Your task to perform on an android device: toggle data saver in the chrome app Image 0: 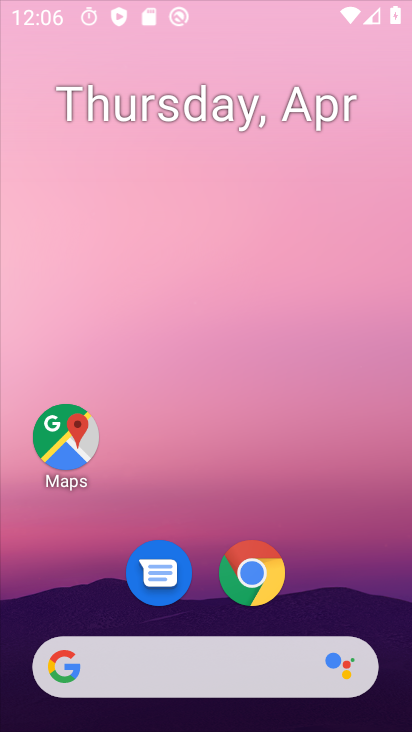
Step 0: click (396, 226)
Your task to perform on an android device: toggle data saver in the chrome app Image 1: 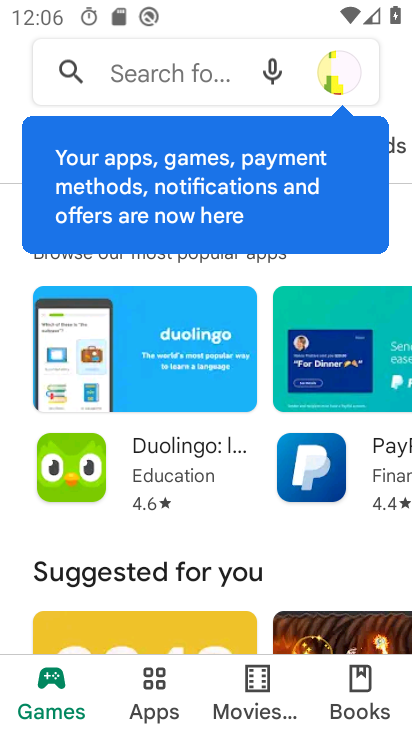
Step 1: press home button
Your task to perform on an android device: toggle data saver in the chrome app Image 2: 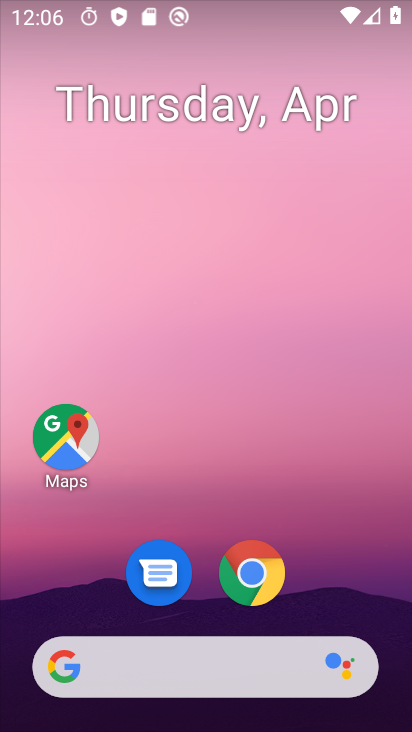
Step 2: click (250, 570)
Your task to perform on an android device: toggle data saver in the chrome app Image 3: 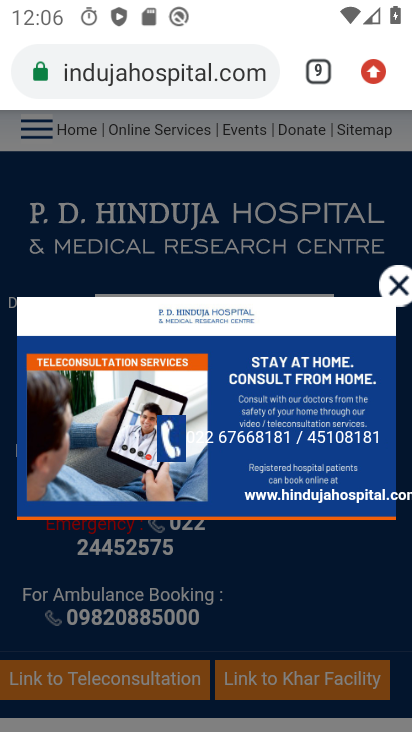
Step 3: press home button
Your task to perform on an android device: toggle data saver in the chrome app Image 4: 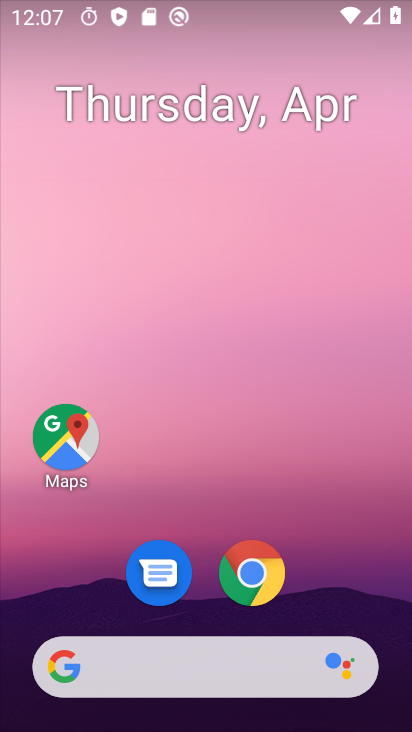
Step 4: click (256, 566)
Your task to perform on an android device: toggle data saver in the chrome app Image 5: 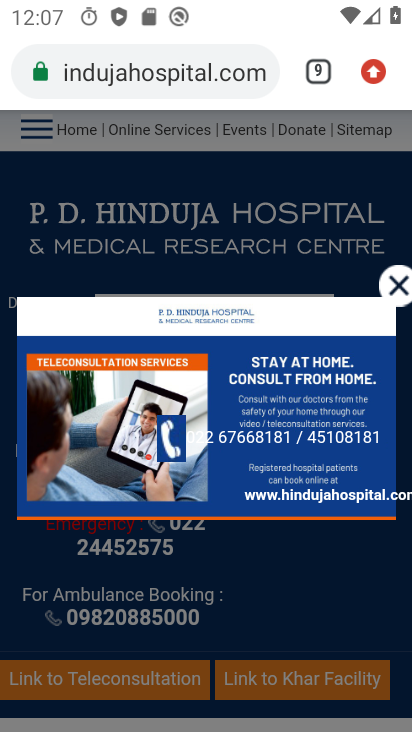
Step 5: click (373, 67)
Your task to perform on an android device: toggle data saver in the chrome app Image 6: 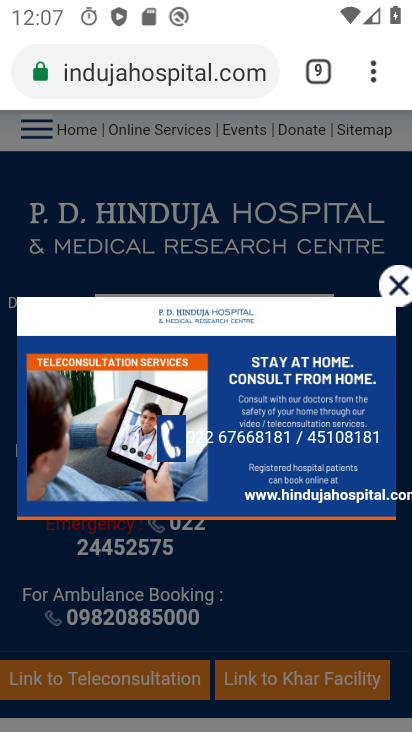
Step 6: click (373, 67)
Your task to perform on an android device: toggle data saver in the chrome app Image 7: 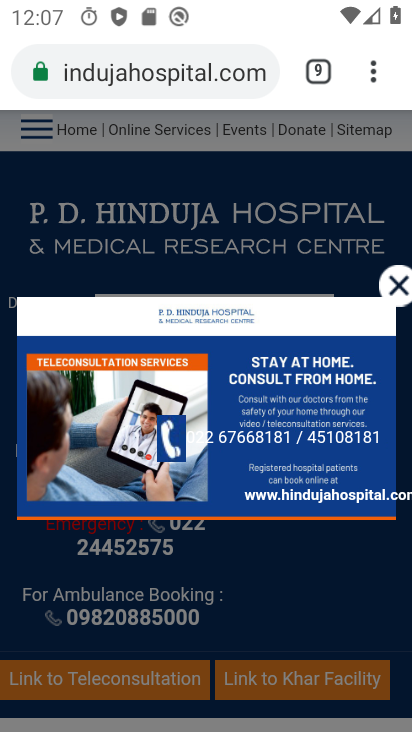
Step 7: click (373, 67)
Your task to perform on an android device: toggle data saver in the chrome app Image 8: 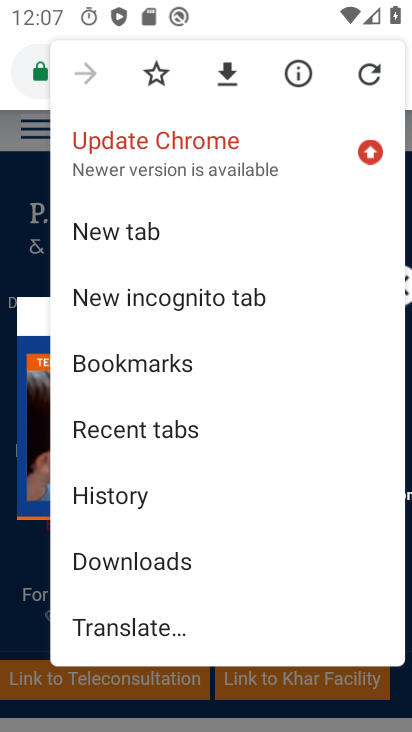
Step 8: drag from (247, 500) to (258, 269)
Your task to perform on an android device: toggle data saver in the chrome app Image 9: 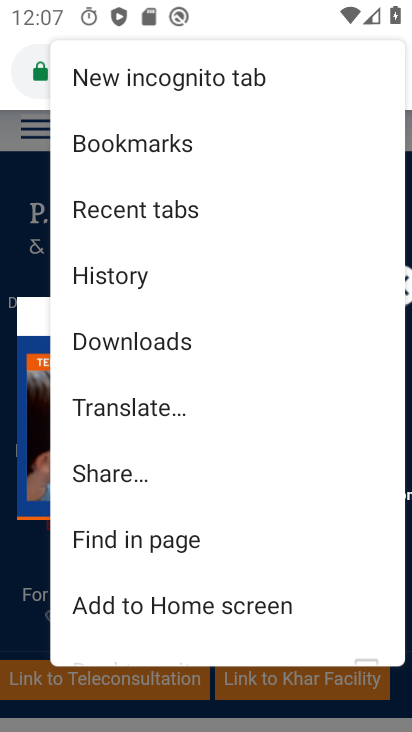
Step 9: drag from (296, 373) to (306, 273)
Your task to perform on an android device: toggle data saver in the chrome app Image 10: 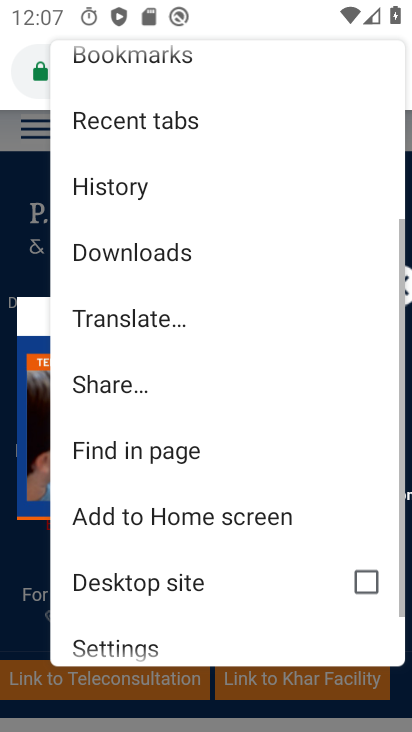
Step 10: drag from (259, 618) to (284, 271)
Your task to perform on an android device: toggle data saver in the chrome app Image 11: 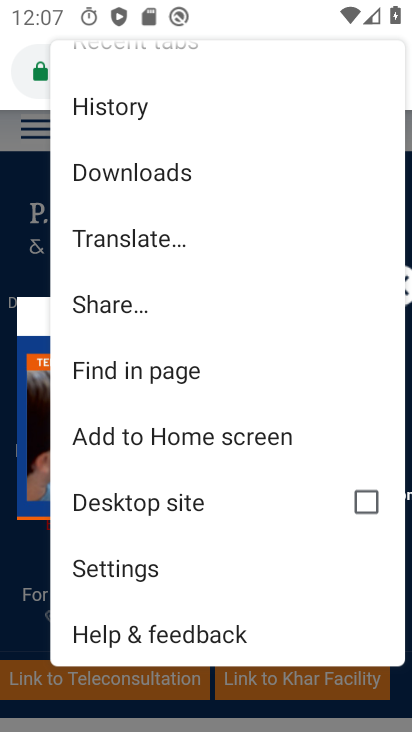
Step 11: click (97, 569)
Your task to perform on an android device: toggle data saver in the chrome app Image 12: 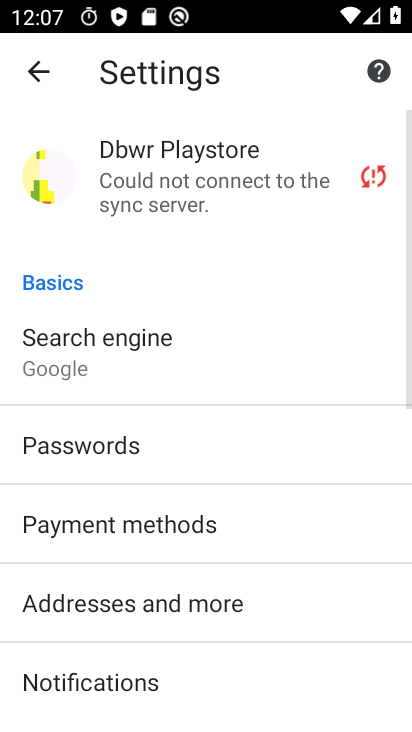
Step 12: drag from (260, 459) to (264, 401)
Your task to perform on an android device: toggle data saver in the chrome app Image 13: 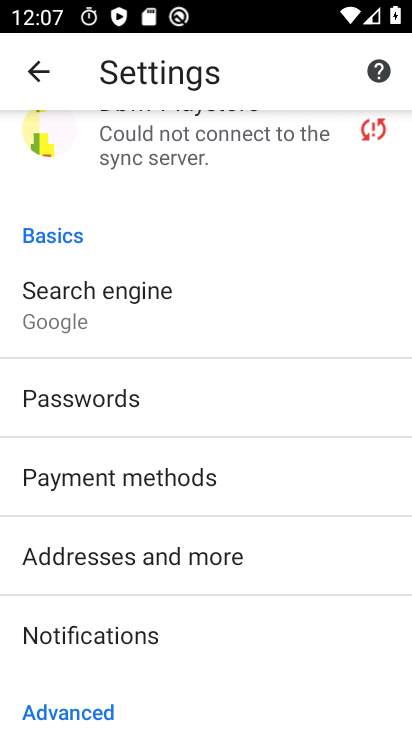
Step 13: drag from (269, 649) to (292, 358)
Your task to perform on an android device: toggle data saver in the chrome app Image 14: 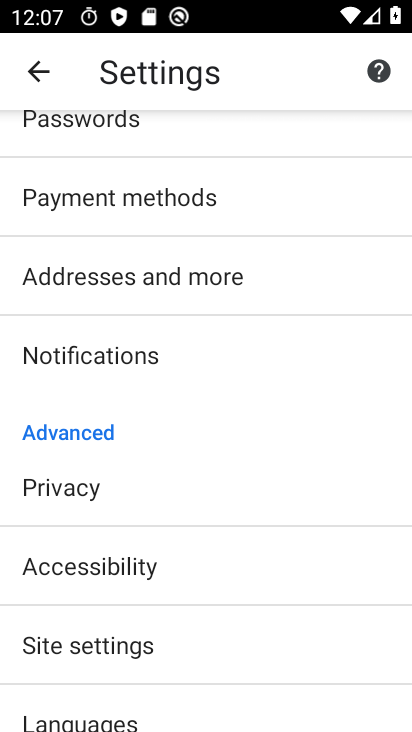
Step 14: drag from (275, 544) to (276, 428)
Your task to perform on an android device: toggle data saver in the chrome app Image 15: 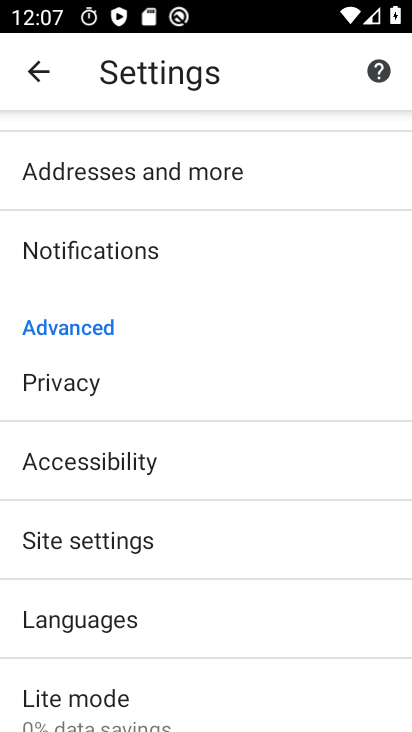
Step 15: click (297, 382)
Your task to perform on an android device: toggle data saver in the chrome app Image 16: 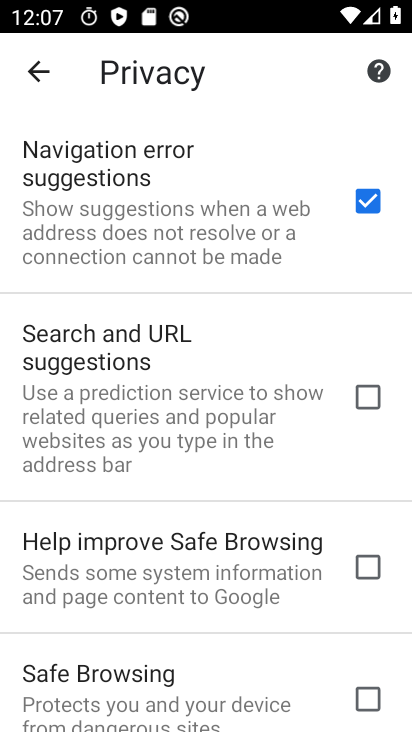
Step 16: drag from (256, 659) to (241, 376)
Your task to perform on an android device: toggle data saver in the chrome app Image 17: 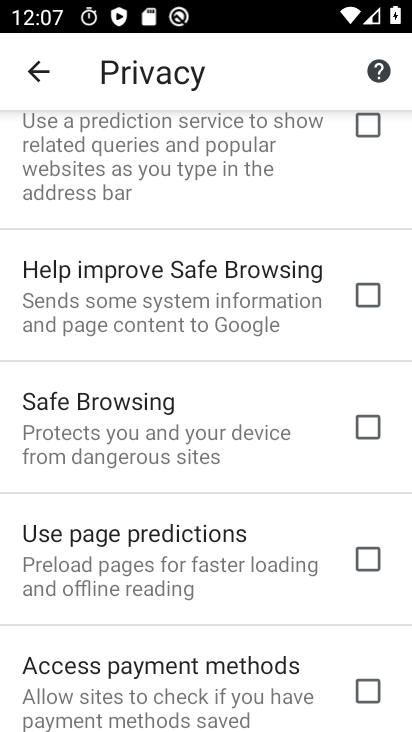
Step 17: click (34, 65)
Your task to perform on an android device: toggle data saver in the chrome app Image 18: 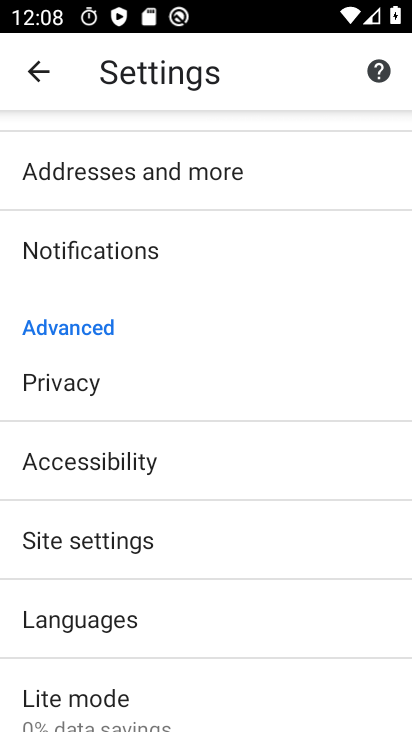
Step 18: click (112, 696)
Your task to perform on an android device: toggle data saver in the chrome app Image 19: 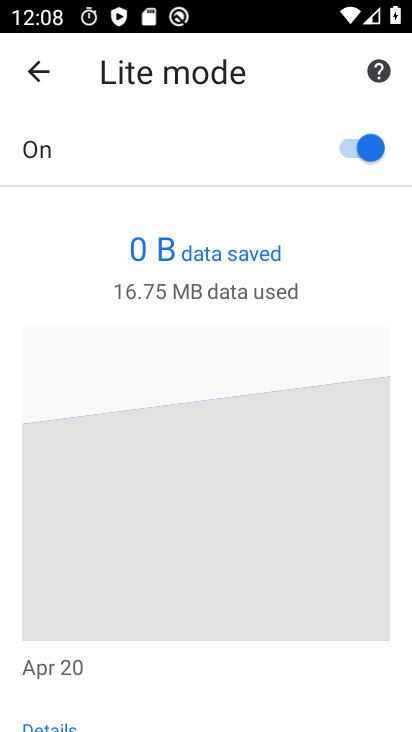
Step 19: click (342, 147)
Your task to perform on an android device: toggle data saver in the chrome app Image 20: 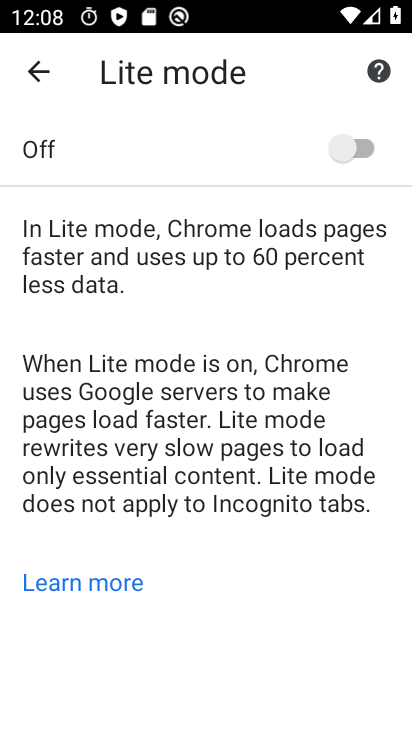
Step 20: task complete